Your task to perform on an android device: Check the news Image 0: 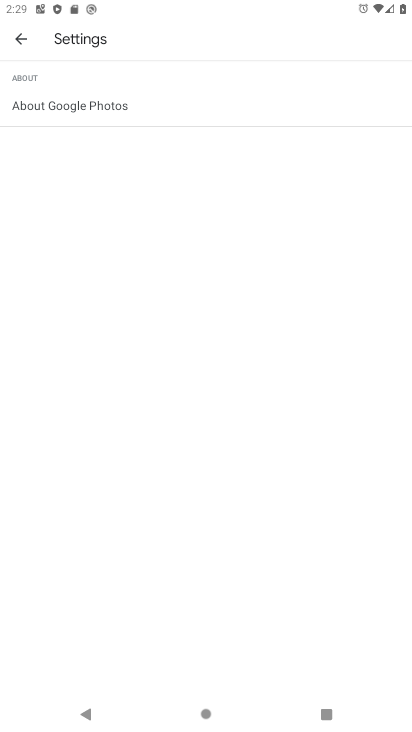
Step 0: press home button
Your task to perform on an android device: Check the news Image 1: 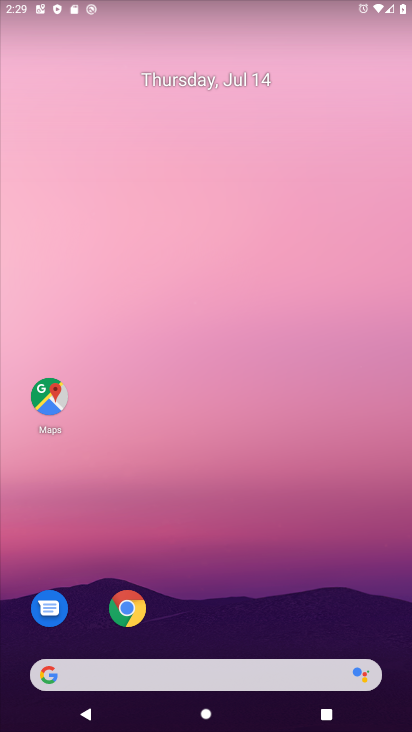
Step 1: task complete